Your task to perform on an android device: Find coffee shops on Maps Image 0: 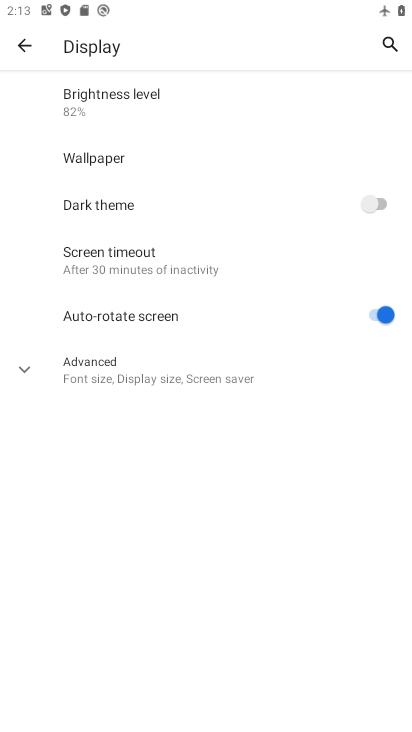
Step 0: press home button
Your task to perform on an android device: Find coffee shops on Maps Image 1: 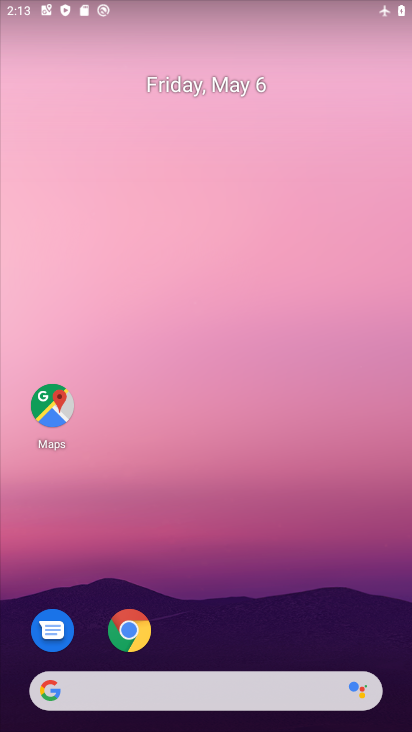
Step 1: click (57, 399)
Your task to perform on an android device: Find coffee shops on Maps Image 2: 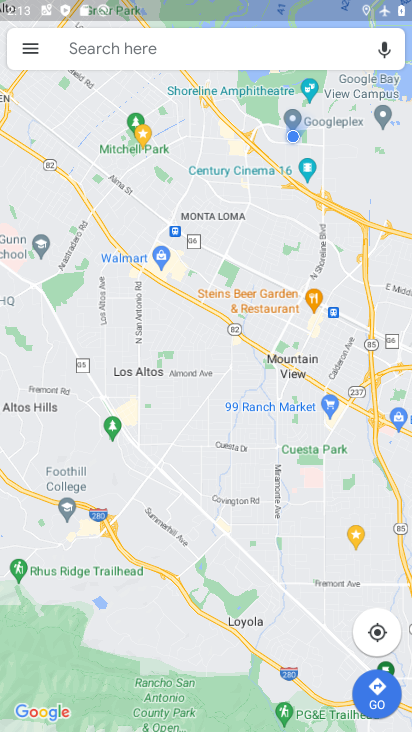
Step 2: click (162, 59)
Your task to perform on an android device: Find coffee shops on Maps Image 3: 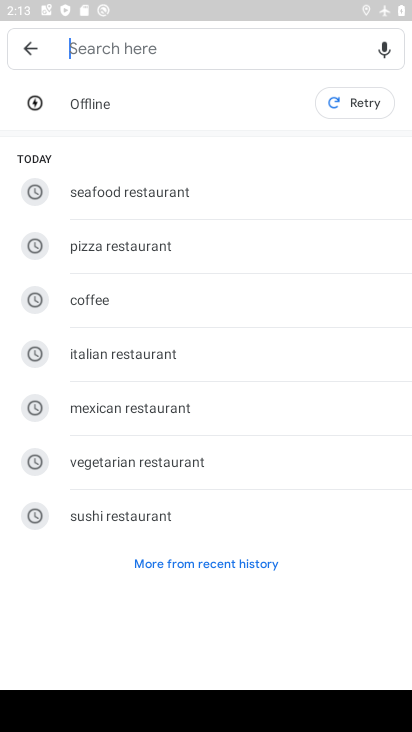
Step 3: click (172, 294)
Your task to perform on an android device: Find coffee shops on Maps Image 4: 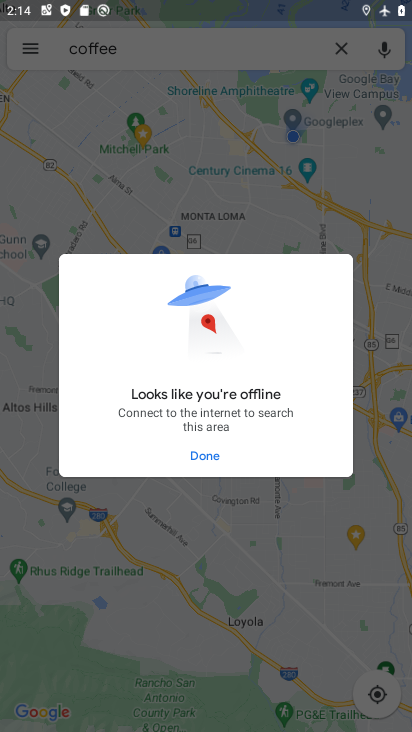
Step 4: task complete